Your task to perform on an android device: toggle wifi Image 0: 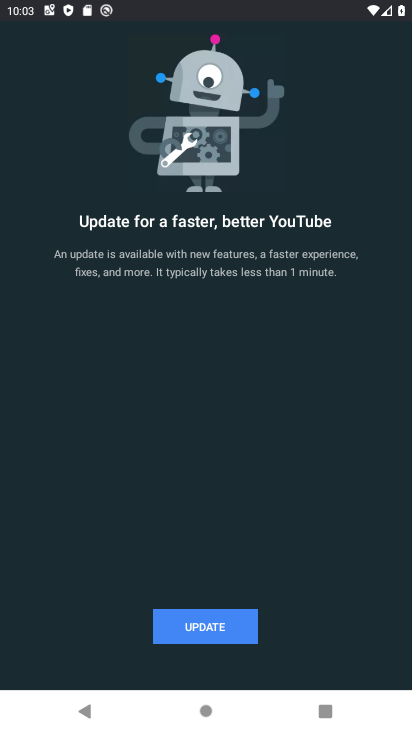
Step 0: press back button
Your task to perform on an android device: toggle wifi Image 1: 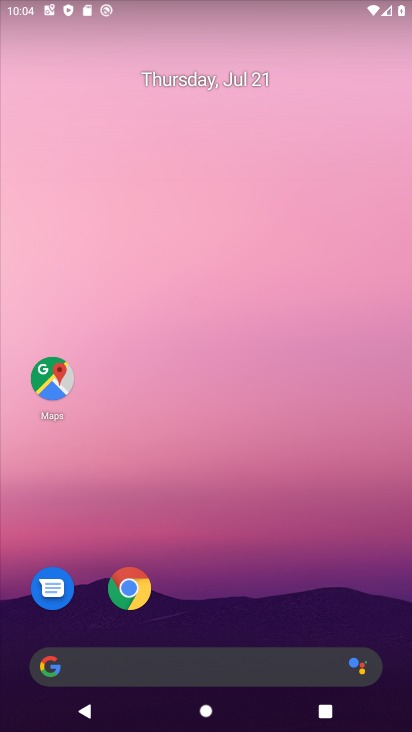
Step 1: drag from (396, 674) to (374, 115)
Your task to perform on an android device: toggle wifi Image 2: 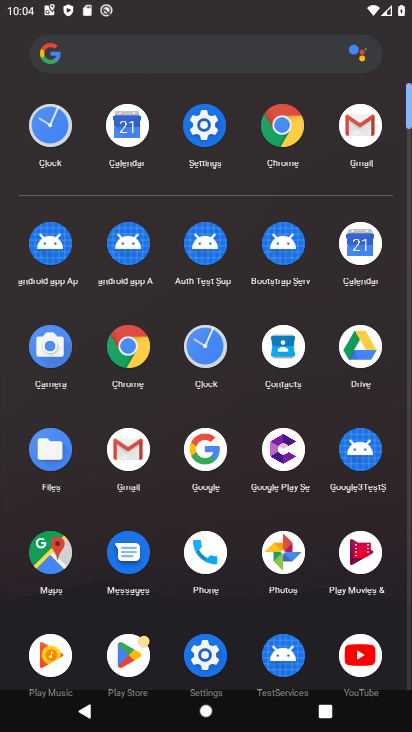
Step 2: click (202, 129)
Your task to perform on an android device: toggle wifi Image 3: 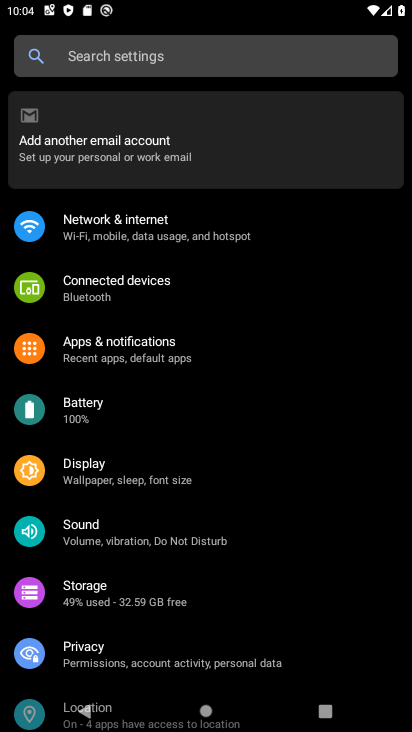
Step 3: click (110, 234)
Your task to perform on an android device: toggle wifi Image 4: 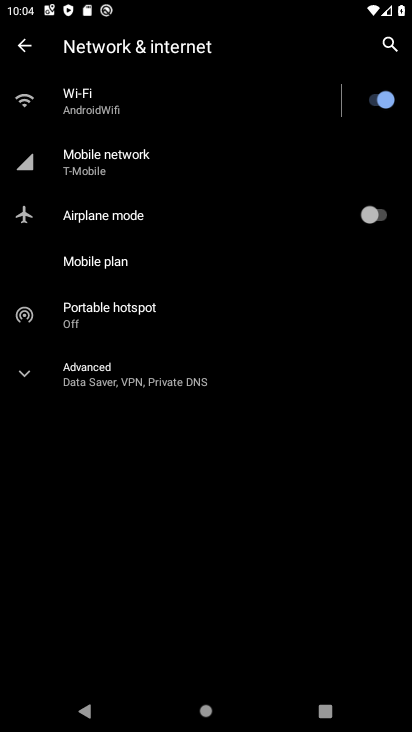
Step 4: click (377, 97)
Your task to perform on an android device: toggle wifi Image 5: 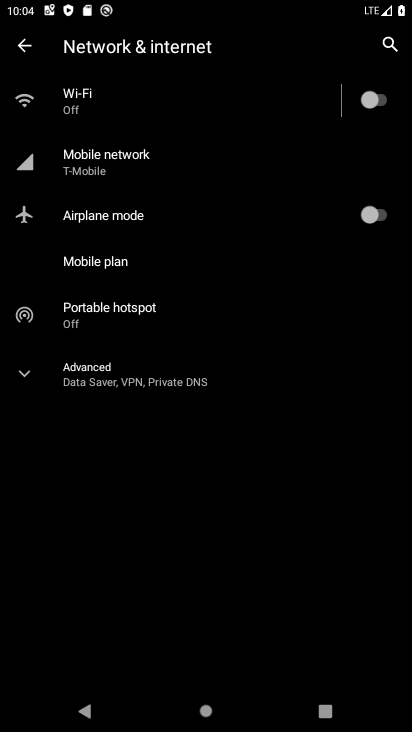
Step 5: task complete